Your task to perform on an android device: turn off notifications settings in the gmail app Image 0: 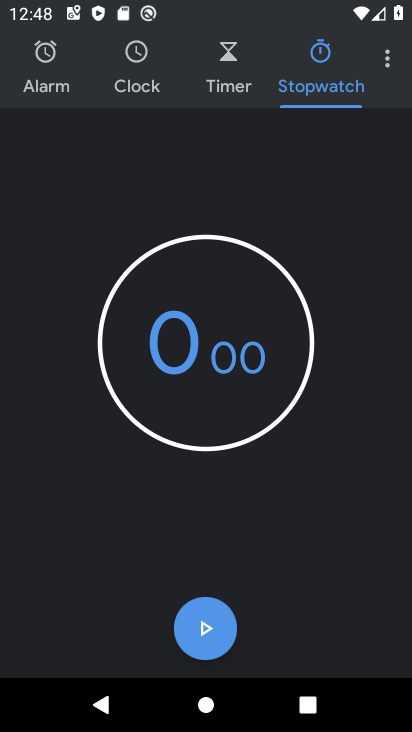
Step 0: press home button
Your task to perform on an android device: turn off notifications settings in the gmail app Image 1: 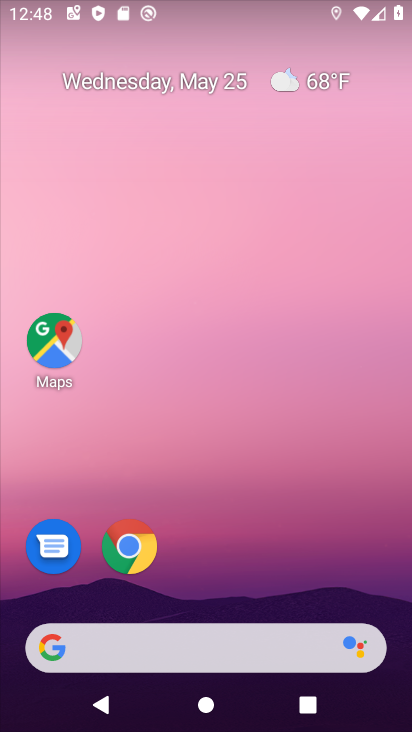
Step 1: drag from (313, 550) to (304, 79)
Your task to perform on an android device: turn off notifications settings in the gmail app Image 2: 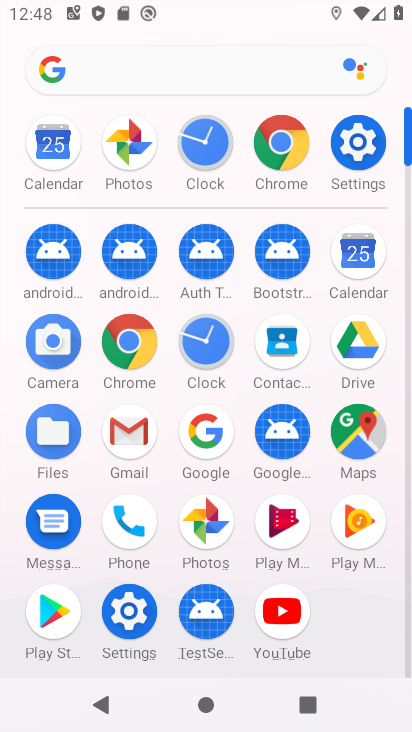
Step 2: click (144, 461)
Your task to perform on an android device: turn off notifications settings in the gmail app Image 3: 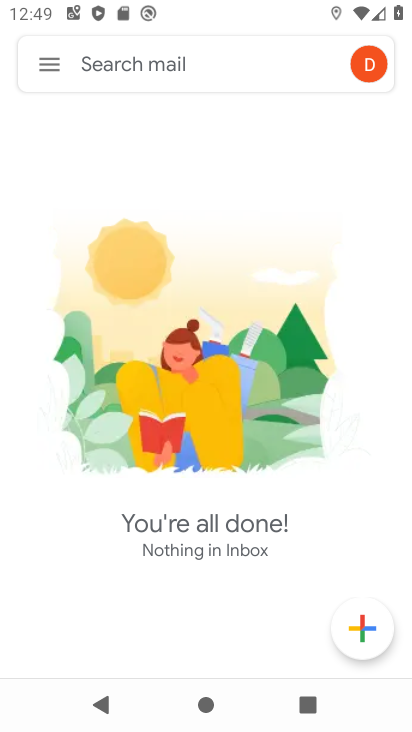
Step 3: click (42, 85)
Your task to perform on an android device: turn off notifications settings in the gmail app Image 4: 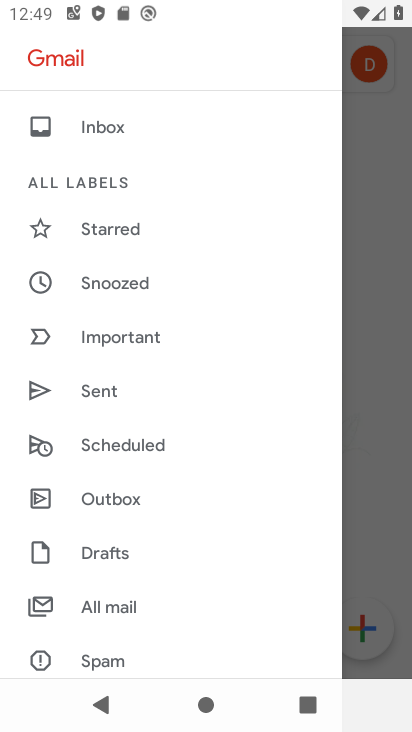
Step 4: drag from (146, 637) to (160, 315)
Your task to perform on an android device: turn off notifications settings in the gmail app Image 5: 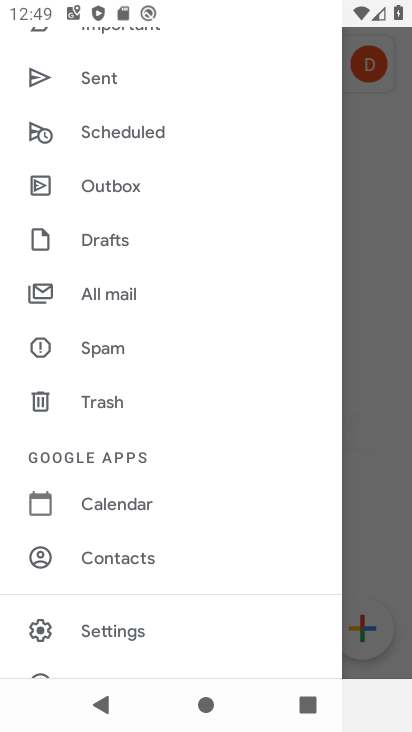
Step 5: click (160, 616)
Your task to perform on an android device: turn off notifications settings in the gmail app Image 6: 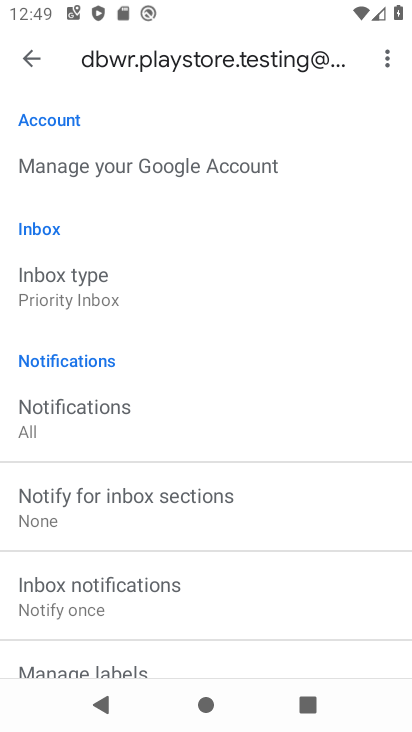
Step 6: task complete